Your task to perform on an android device: What's the weather going to be tomorrow? Image 0: 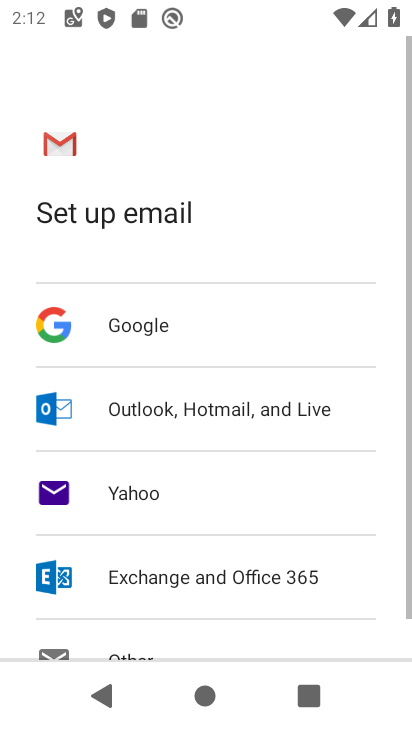
Step 0: press home button
Your task to perform on an android device: What's the weather going to be tomorrow? Image 1: 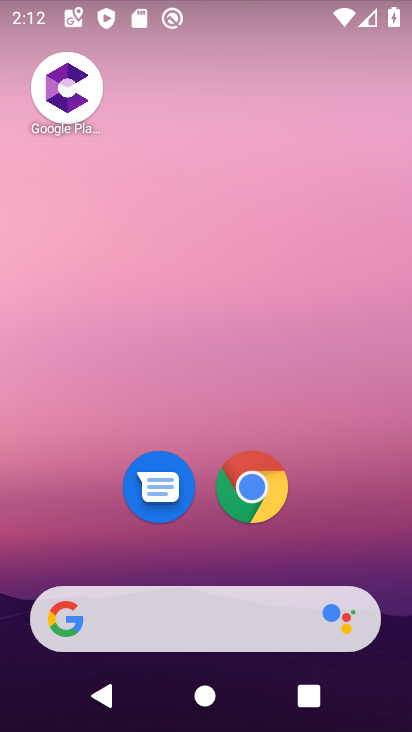
Step 1: drag from (293, 390) to (255, 3)
Your task to perform on an android device: What's the weather going to be tomorrow? Image 2: 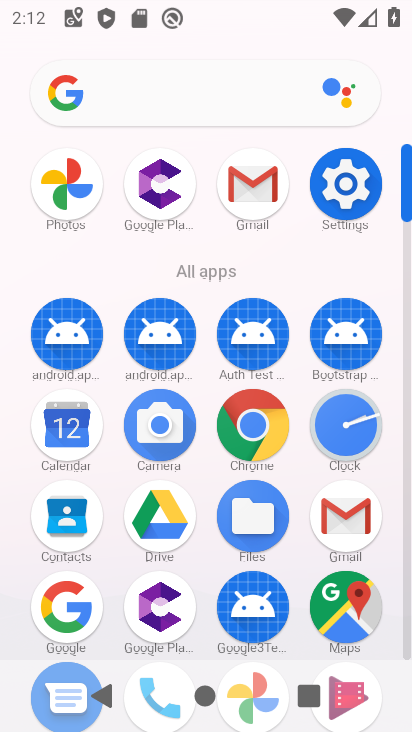
Step 2: click (252, 427)
Your task to perform on an android device: What's the weather going to be tomorrow? Image 3: 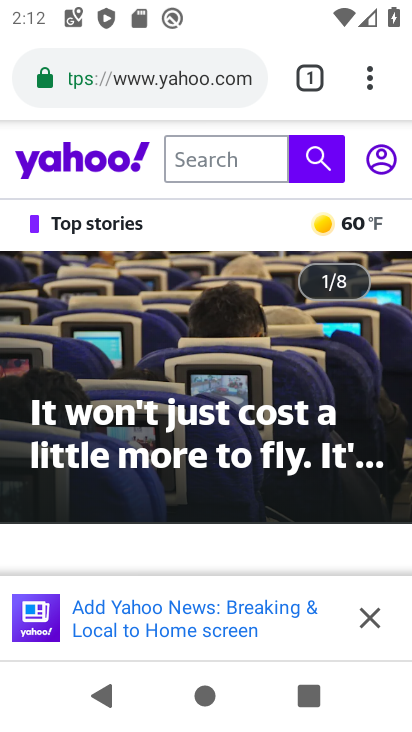
Step 3: click (232, 89)
Your task to perform on an android device: What's the weather going to be tomorrow? Image 4: 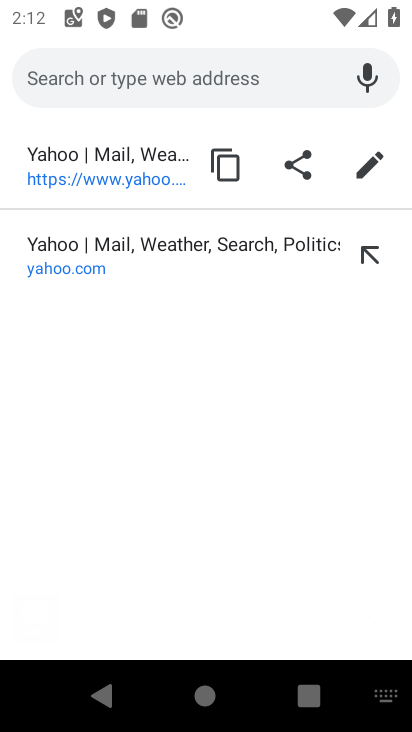
Step 4: type "weather"
Your task to perform on an android device: What's the weather going to be tomorrow? Image 5: 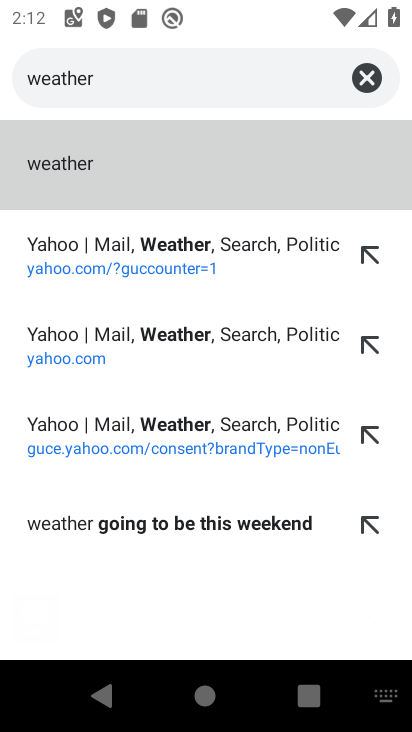
Step 5: click (87, 180)
Your task to perform on an android device: What's the weather going to be tomorrow? Image 6: 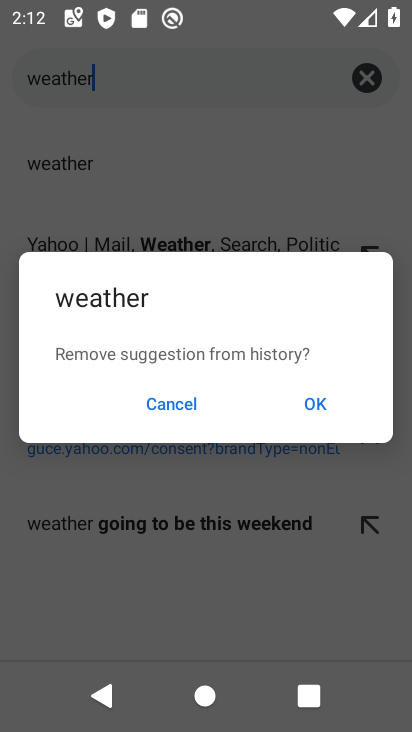
Step 6: click (168, 412)
Your task to perform on an android device: What's the weather going to be tomorrow? Image 7: 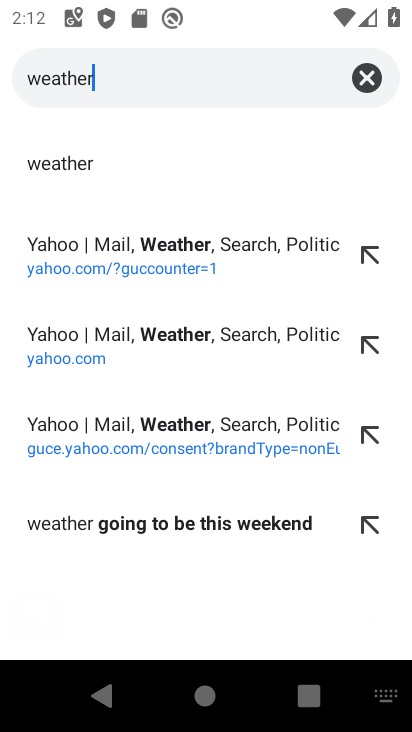
Step 7: click (45, 163)
Your task to perform on an android device: What's the weather going to be tomorrow? Image 8: 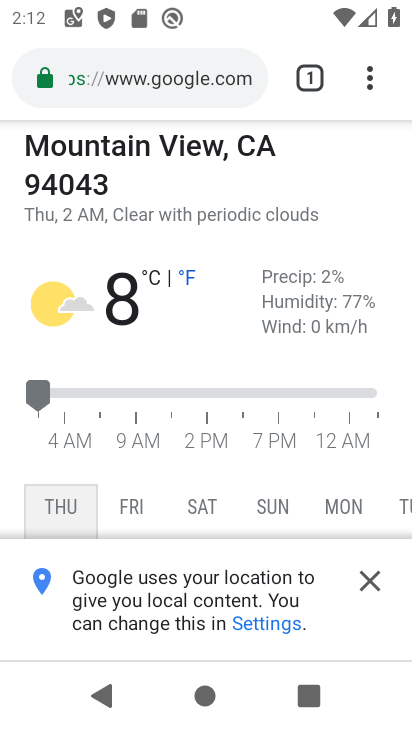
Step 8: drag from (229, 365) to (232, 114)
Your task to perform on an android device: What's the weather going to be tomorrow? Image 9: 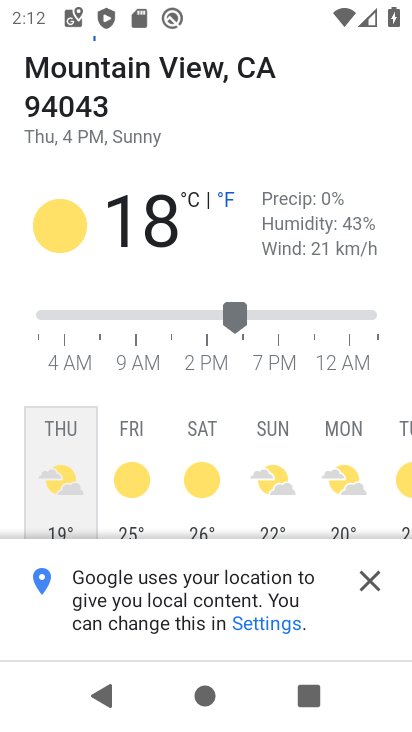
Step 9: click (127, 422)
Your task to perform on an android device: What's the weather going to be tomorrow? Image 10: 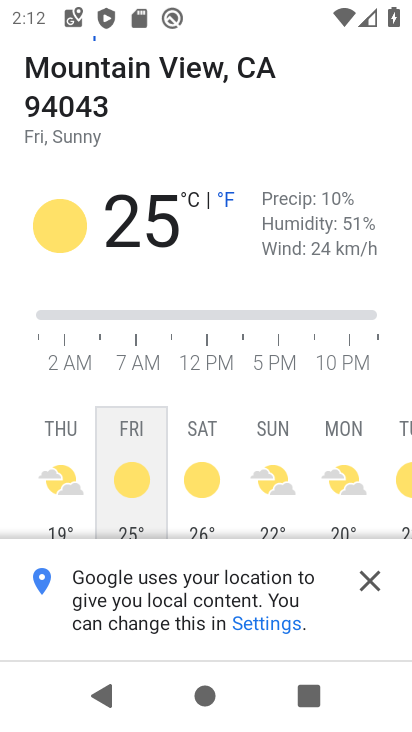
Step 10: task complete